Your task to perform on an android device: Go to ESPN.com Image 0: 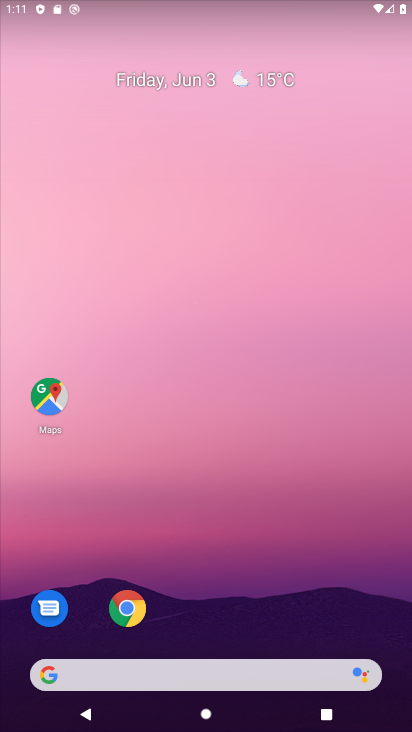
Step 0: drag from (296, 505) to (244, 200)
Your task to perform on an android device: Go to ESPN.com Image 1: 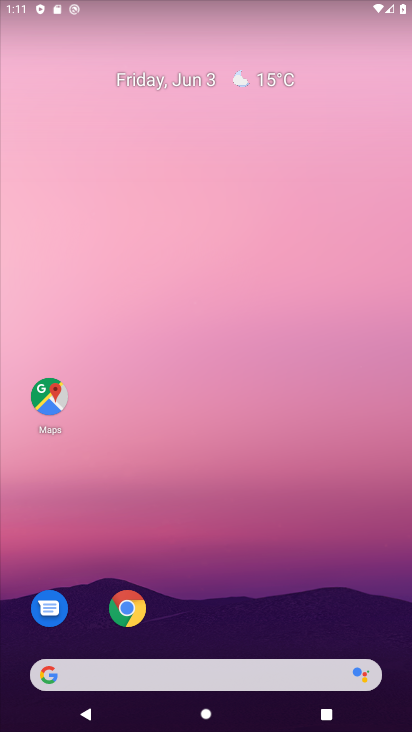
Step 1: drag from (255, 595) to (263, 181)
Your task to perform on an android device: Go to ESPN.com Image 2: 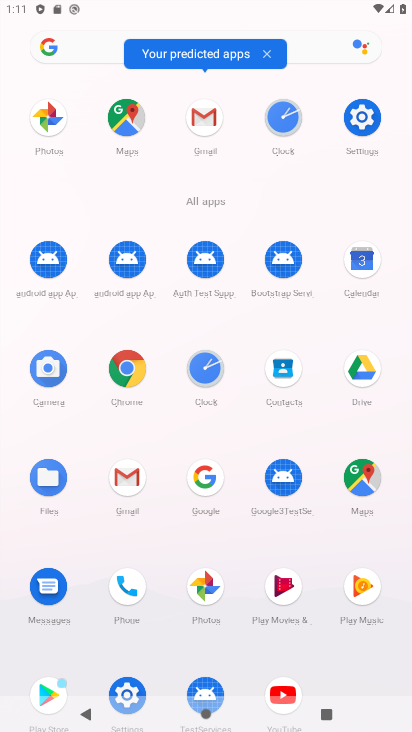
Step 2: click (130, 367)
Your task to perform on an android device: Go to ESPN.com Image 3: 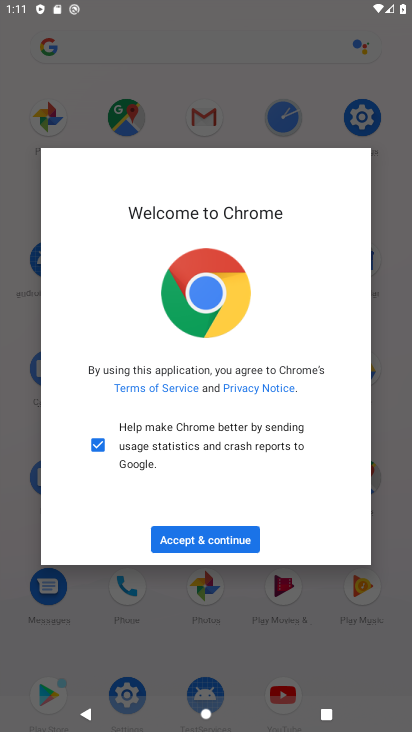
Step 3: click (223, 530)
Your task to perform on an android device: Go to ESPN.com Image 4: 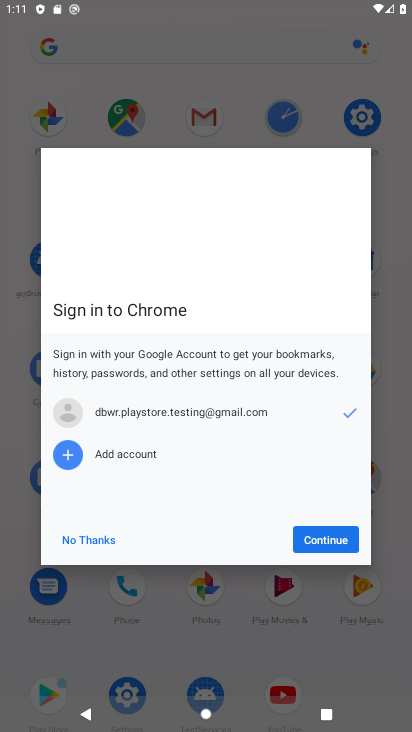
Step 4: click (333, 545)
Your task to perform on an android device: Go to ESPN.com Image 5: 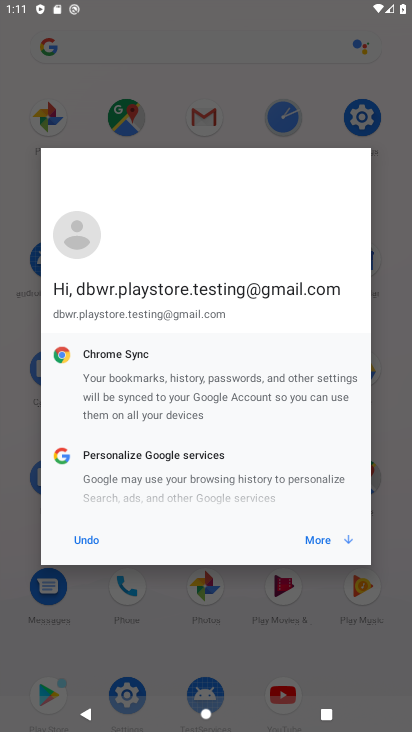
Step 5: click (326, 540)
Your task to perform on an android device: Go to ESPN.com Image 6: 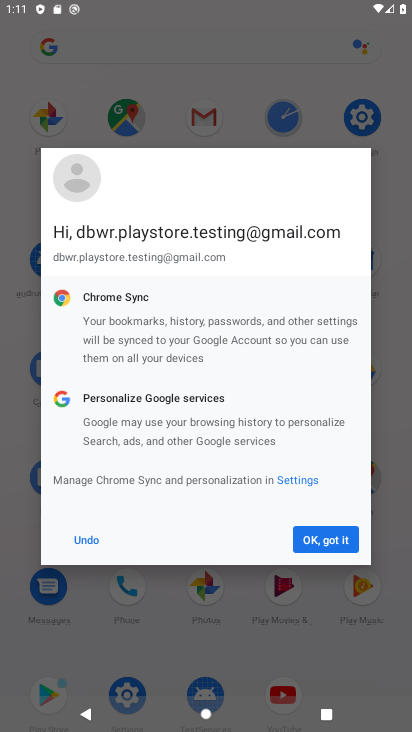
Step 6: click (310, 537)
Your task to perform on an android device: Go to ESPN.com Image 7: 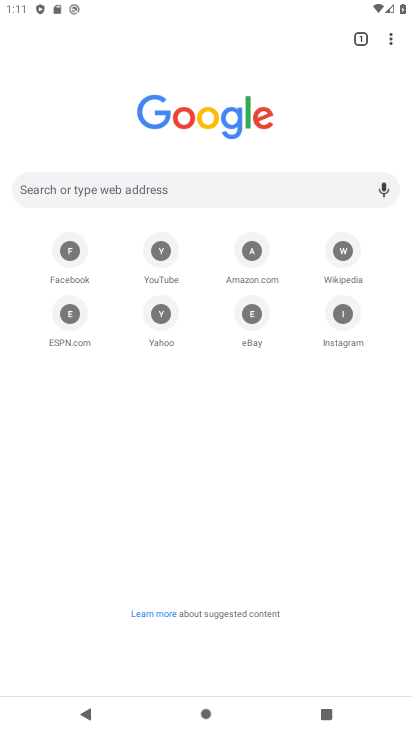
Step 7: click (143, 43)
Your task to perform on an android device: Go to ESPN.com Image 8: 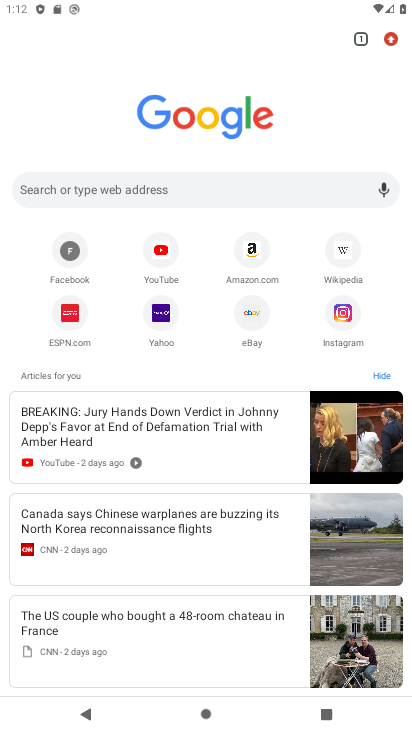
Step 8: click (75, 318)
Your task to perform on an android device: Go to ESPN.com Image 9: 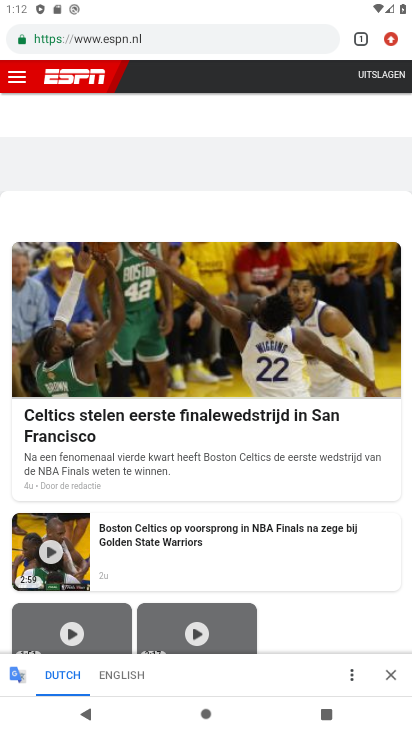
Step 9: task complete